Your task to perform on an android device: turn on sleep mode Image 0: 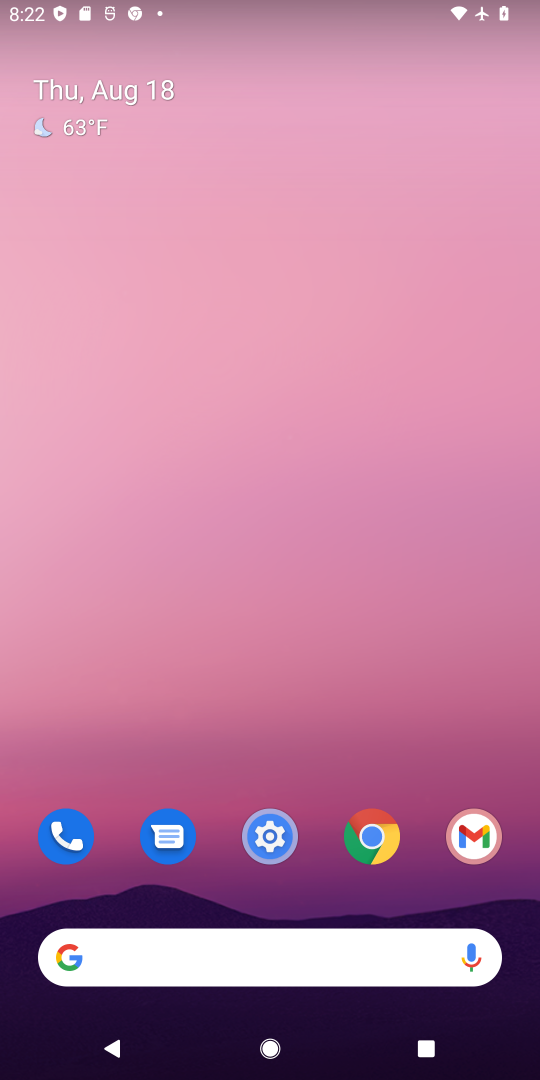
Step 0: click (341, 2)
Your task to perform on an android device: turn on sleep mode Image 1: 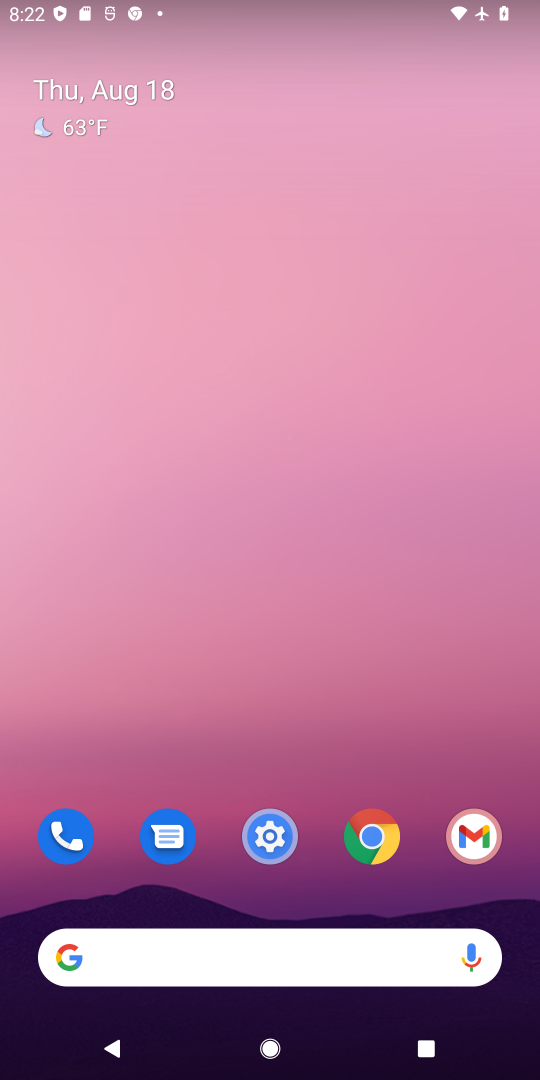
Step 1: drag from (381, 678) to (375, 13)
Your task to perform on an android device: turn on sleep mode Image 2: 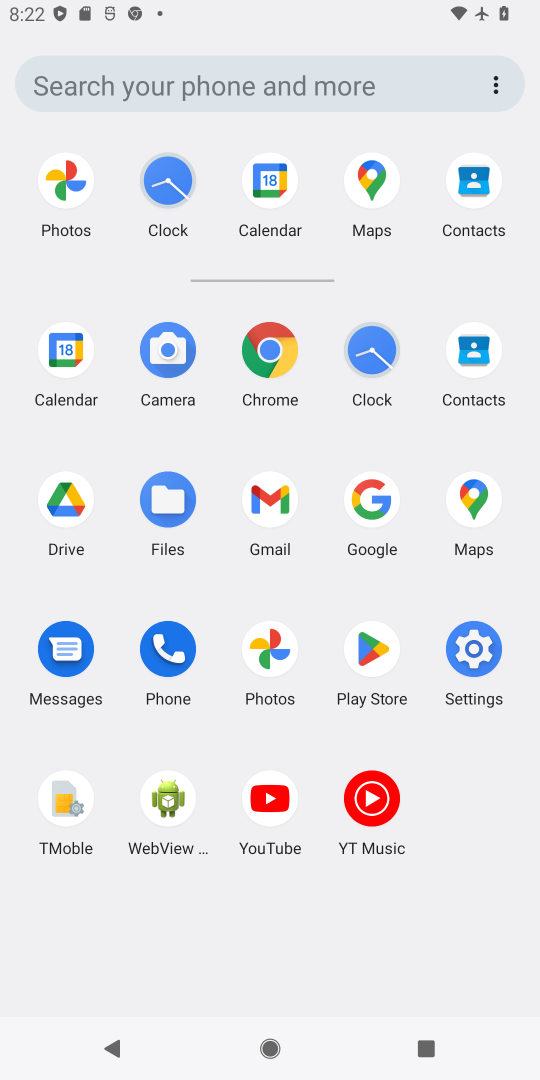
Step 2: click (491, 667)
Your task to perform on an android device: turn on sleep mode Image 3: 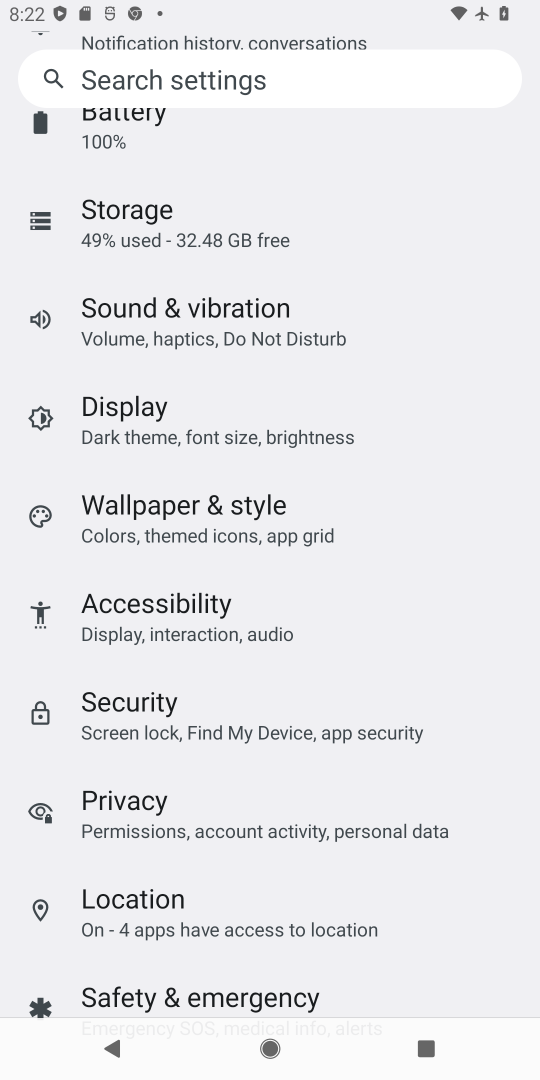
Step 3: click (143, 391)
Your task to perform on an android device: turn on sleep mode Image 4: 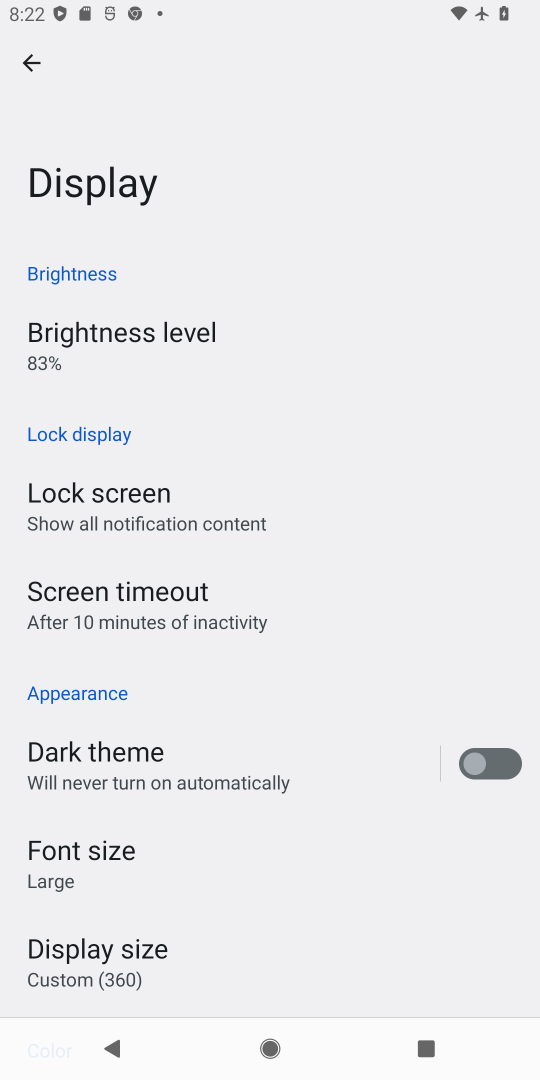
Step 4: click (136, 601)
Your task to perform on an android device: turn on sleep mode Image 5: 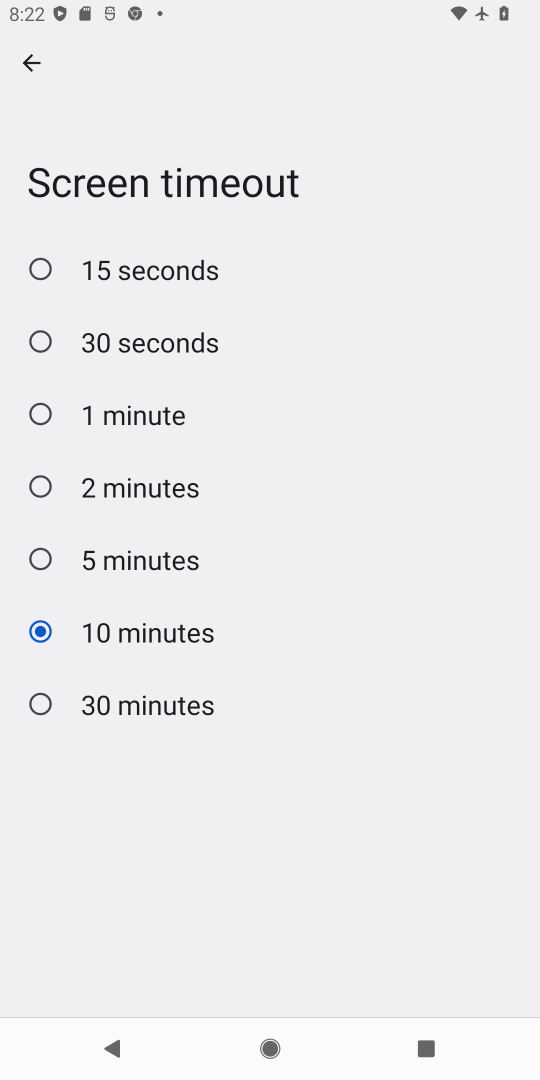
Step 5: task complete